Your task to perform on an android device: Open eBay Image 0: 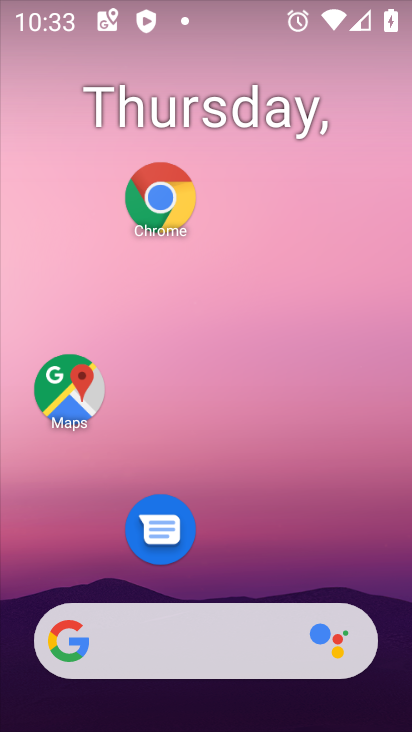
Step 0: drag from (279, 470) to (209, 146)
Your task to perform on an android device: Open eBay Image 1: 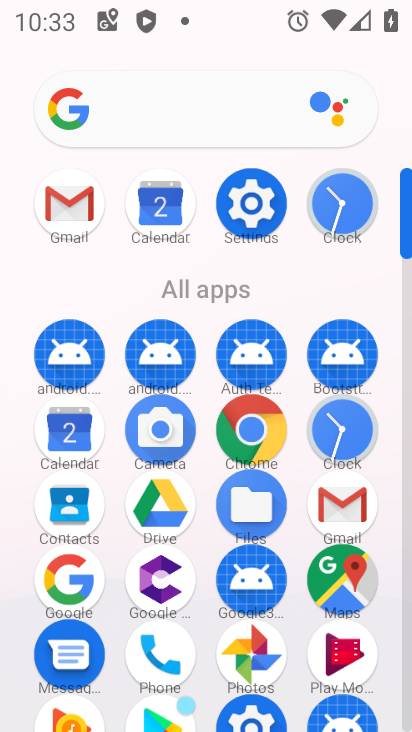
Step 1: click (257, 435)
Your task to perform on an android device: Open eBay Image 2: 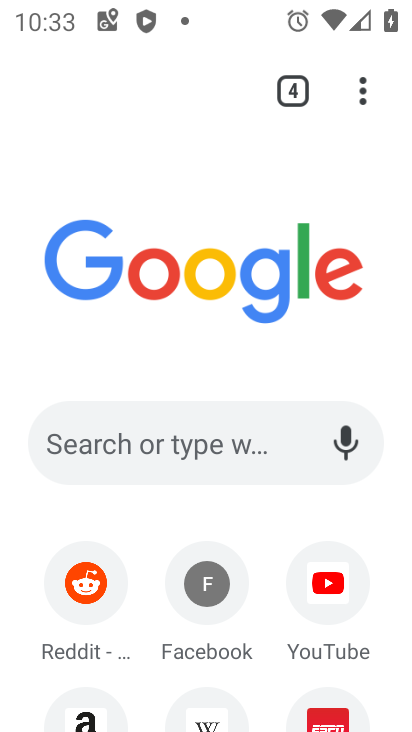
Step 2: click (147, 446)
Your task to perform on an android device: Open eBay Image 3: 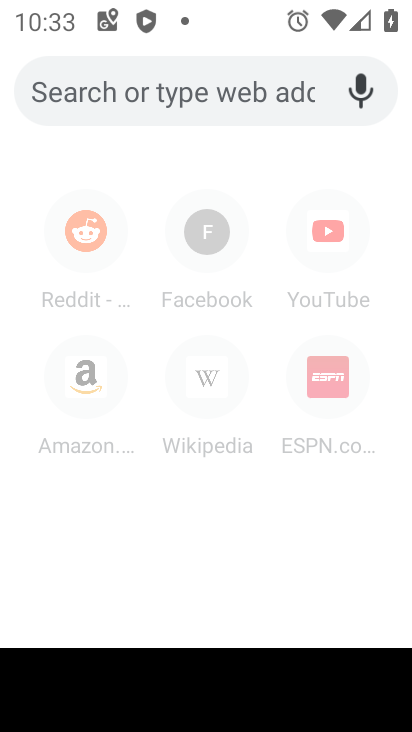
Step 3: type "ebay"
Your task to perform on an android device: Open eBay Image 4: 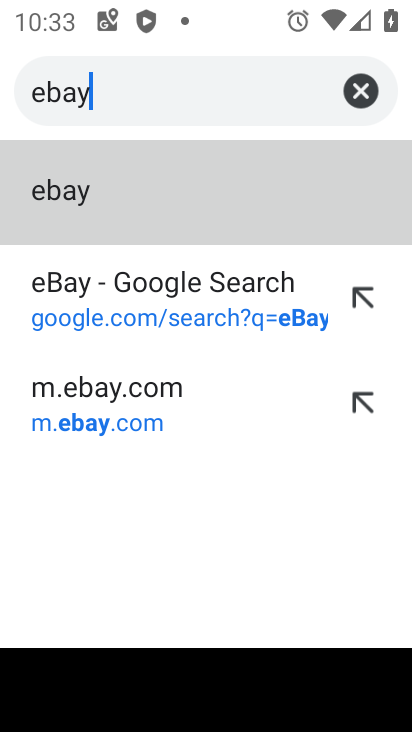
Step 4: click (69, 184)
Your task to perform on an android device: Open eBay Image 5: 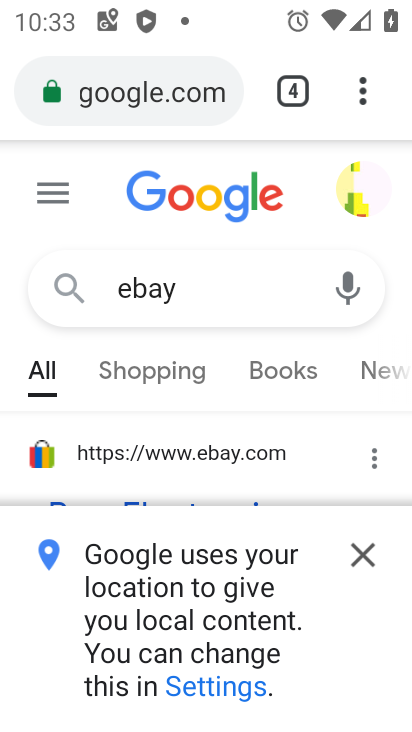
Step 5: click (351, 554)
Your task to perform on an android device: Open eBay Image 6: 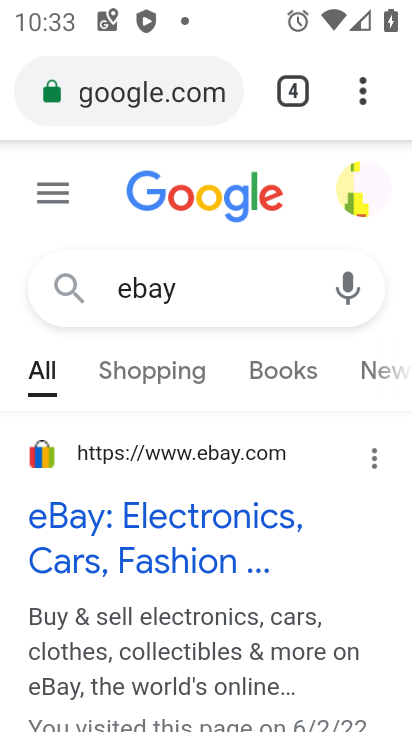
Step 6: task complete